Your task to perform on an android device: Open location settings Image 0: 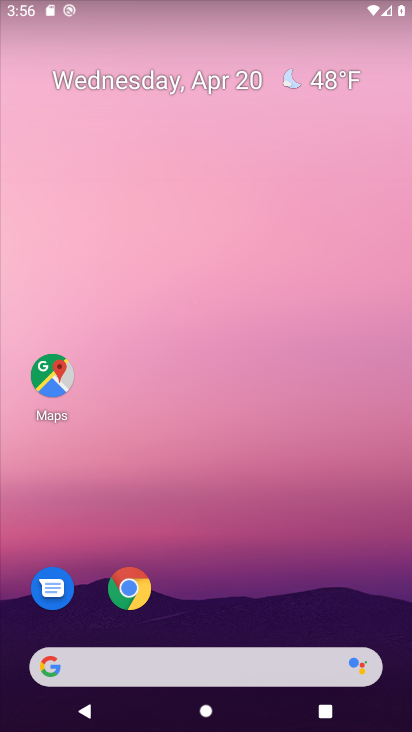
Step 0: drag from (321, 598) to (321, 190)
Your task to perform on an android device: Open location settings Image 1: 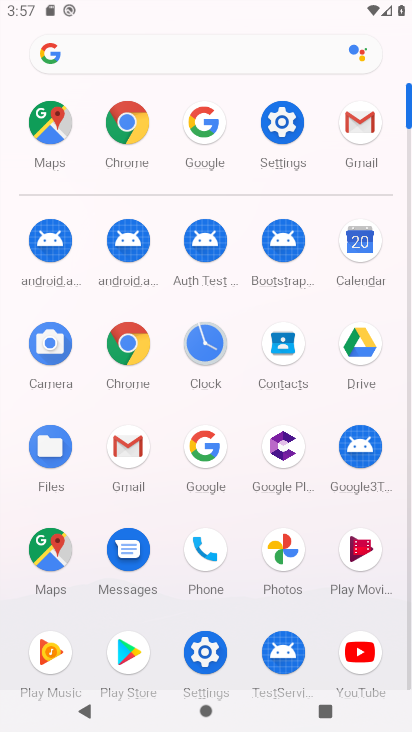
Step 1: click (280, 124)
Your task to perform on an android device: Open location settings Image 2: 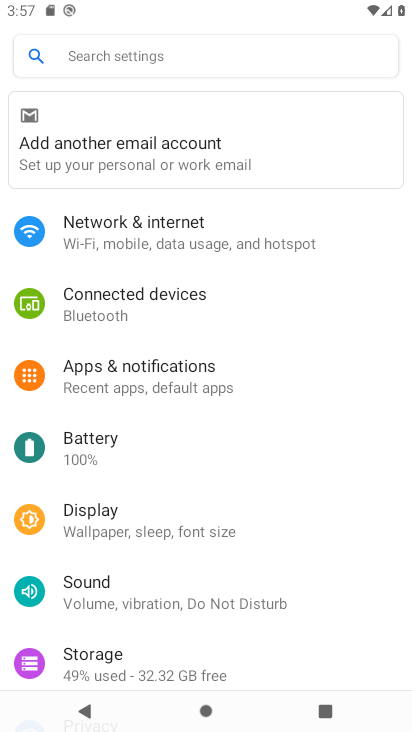
Step 2: drag from (339, 521) to (332, 410)
Your task to perform on an android device: Open location settings Image 3: 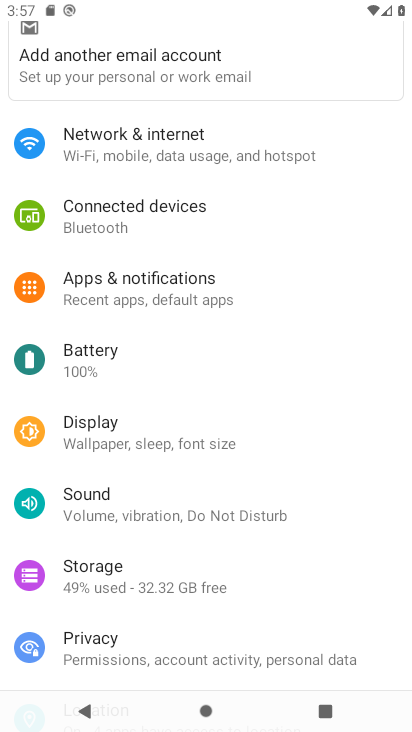
Step 3: drag from (343, 537) to (370, 424)
Your task to perform on an android device: Open location settings Image 4: 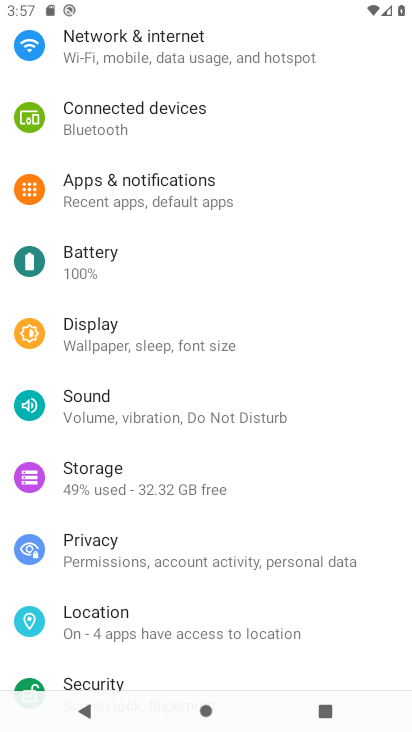
Step 4: drag from (346, 619) to (364, 501)
Your task to perform on an android device: Open location settings Image 5: 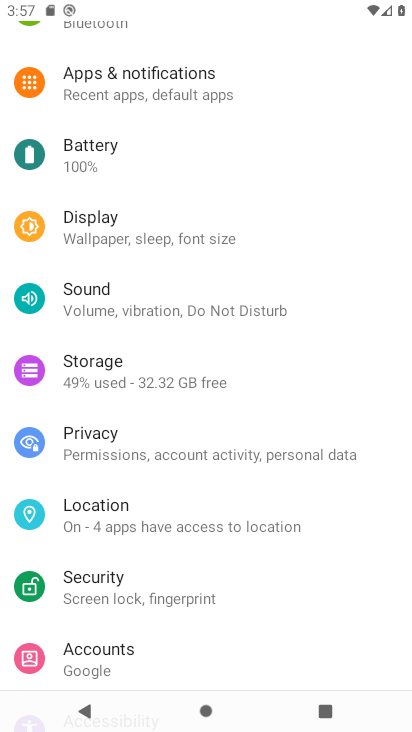
Step 5: drag from (335, 612) to (362, 500)
Your task to perform on an android device: Open location settings Image 6: 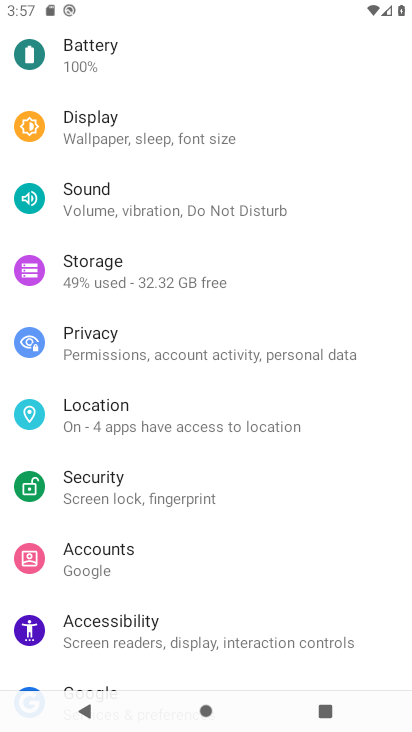
Step 6: drag from (320, 582) to (354, 465)
Your task to perform on an android device: Open location settings Image 7: 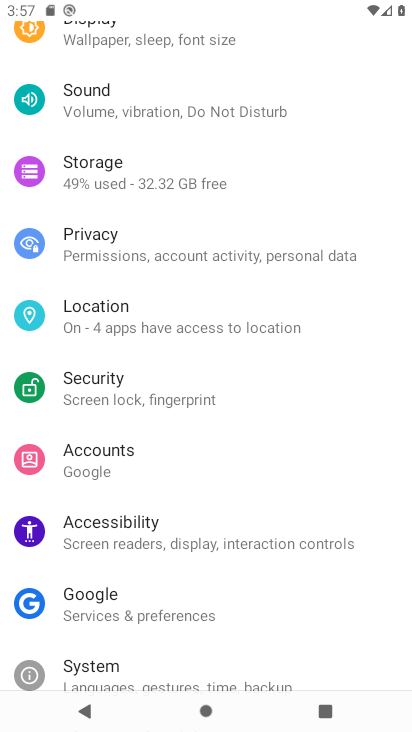
Step 7: drag from (322, 614) to (329, 493)
Your task to perform on an android device: Open location settings Image 8: 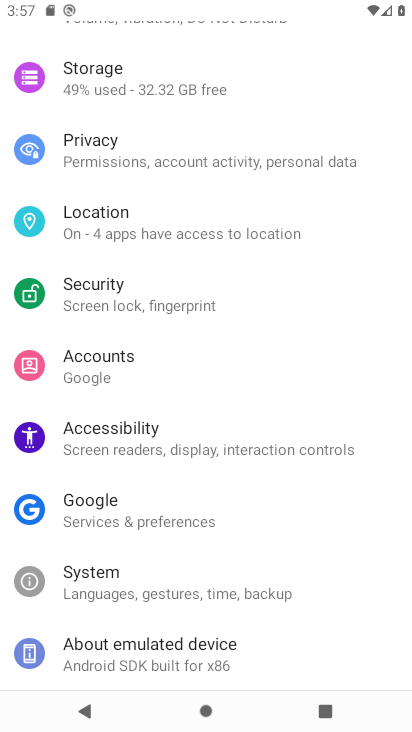
Step 8: drag from (339, 619) to (387, 484)
Your task to perform on an android device: Open location settings Image 9: 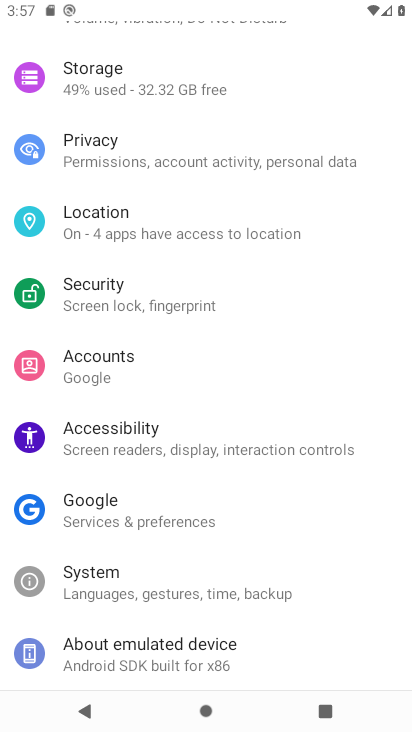
Step 9: drag from (360, 326) to (356, 411)
Your task to perform on an android device: Open location settings Image 10: 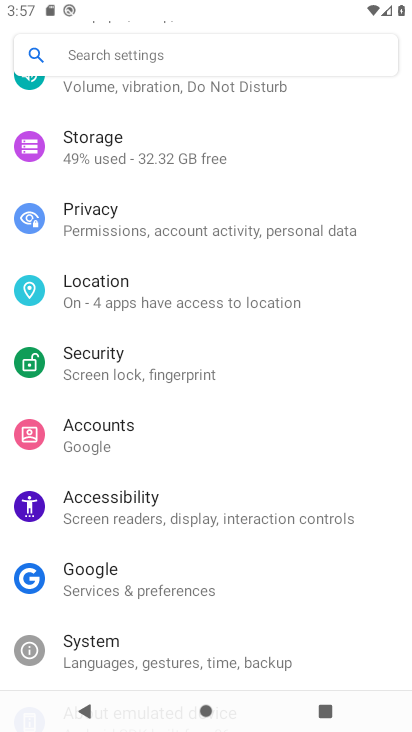
Step 10: drag from (351, 301) to (362, 429)
Your task to perform on an android device: Open location settings Image 11: 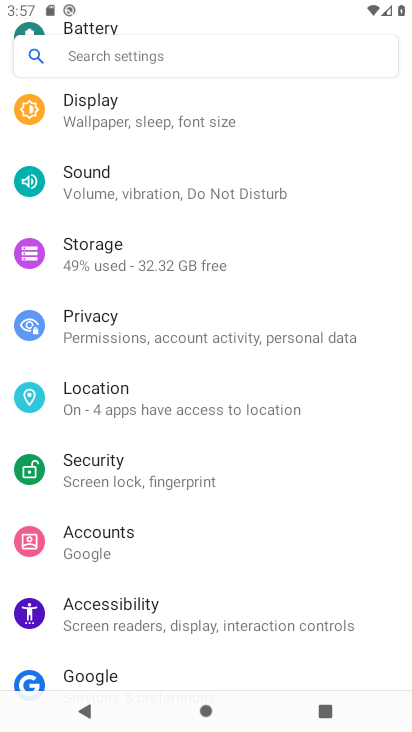
Step 11: click (191, 408)
Your task to perform on an android device: Open location settings Image 12: 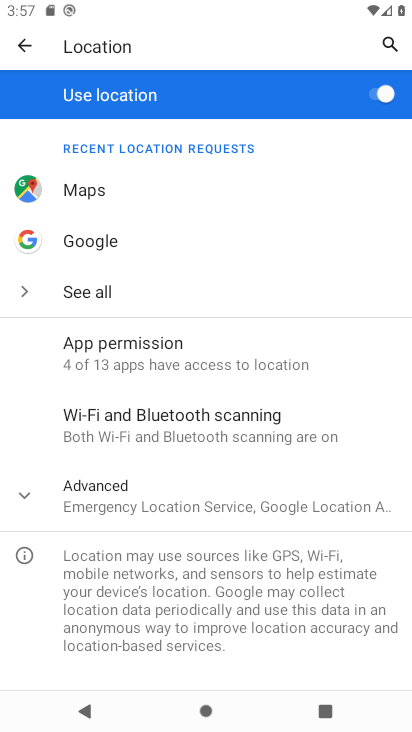
Step 12: task complete